Your task to perform on an android device: Open the Play Movies app and select the watchlist tab. Image 0: 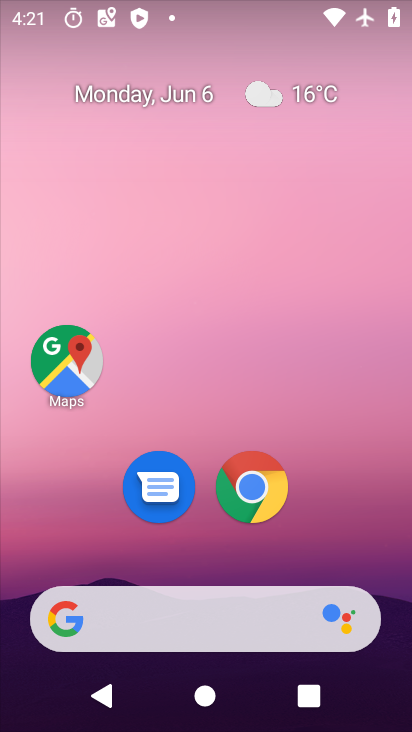
Step 0: drag from (339, 513) to (377, 147)
Your task to perform on an android device: Open the Play Movies app and select the watchlist tab. Image 1: 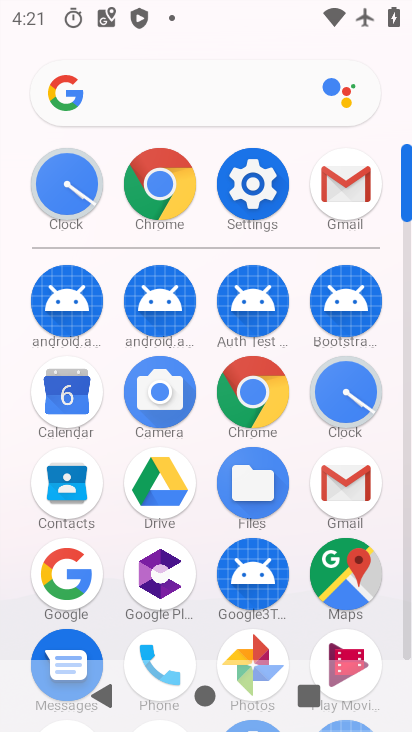
Step 1: drag from (200, 626) to (263, 313)
Your task to perform on an android device: Open the Play Movies app and select the watchlist tab. Image 2: 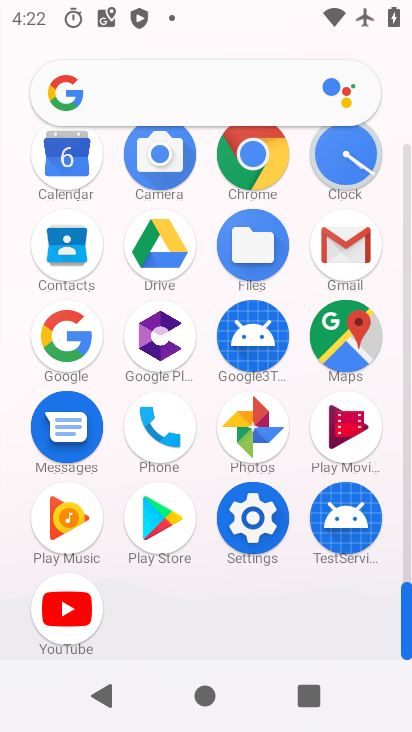
Step 2: click (169, 537)
Your task to perform on an android device: Open the Play Movies app and select the watchlist tab. Image 3: 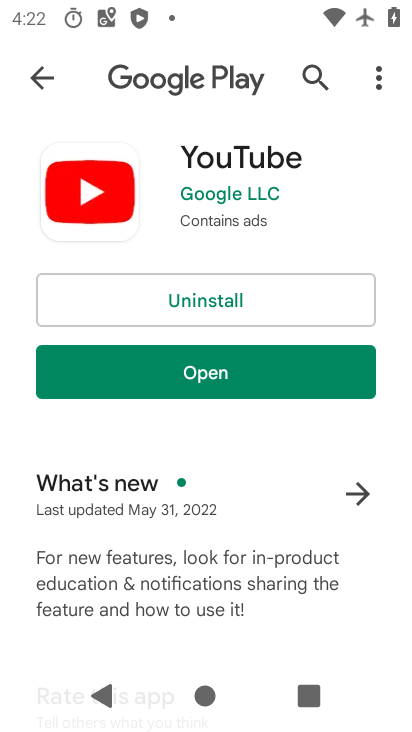
Step 3: click (49, 71)
Your task to perform on an android device: Open the Play Movies app and select the watchlist tab. Image 4: 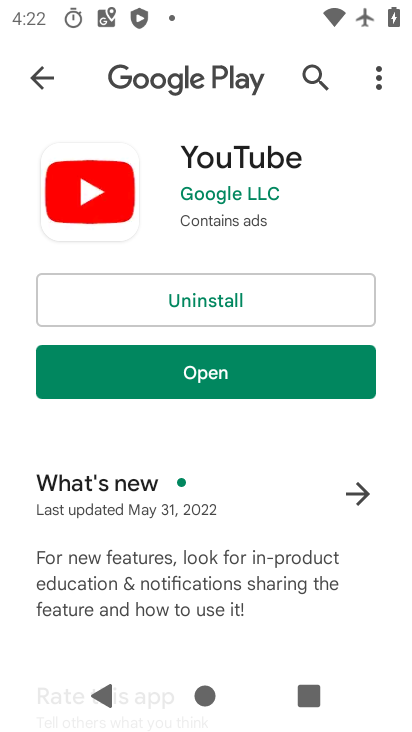
Step 4: click (42, 81)
Your task to perform on an android device: Open the Play Movies app and select the watchlist tab. Image 5: 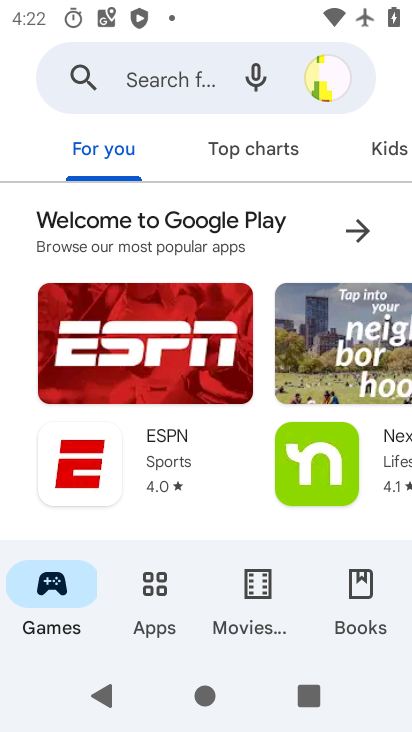
Step 5: press home button
Your task to perform on an android device: Open the Play Movies app and select the watchlist tab. Image 6: 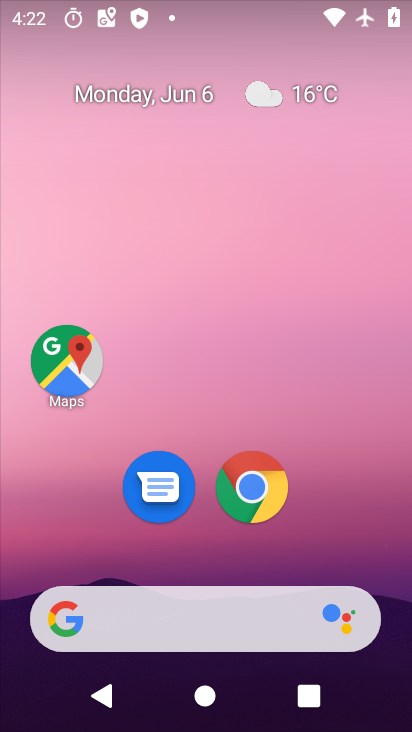
Step 6: drag from (332, 304) to (370, 82)
Your task to perform on an android device: Open the Play Movies app and select the watchlist tab. Image 7: 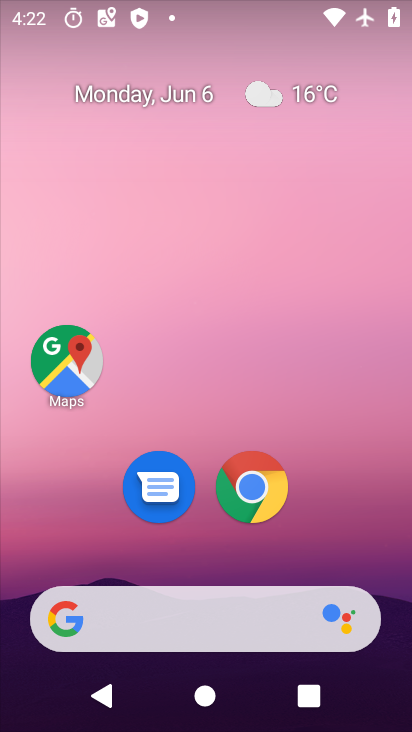
Step 7: drag from (348, 454) to (398, 127)
Your task to perform on an android device: Open the Play Movies app and select the watchlist tab. Image 8: 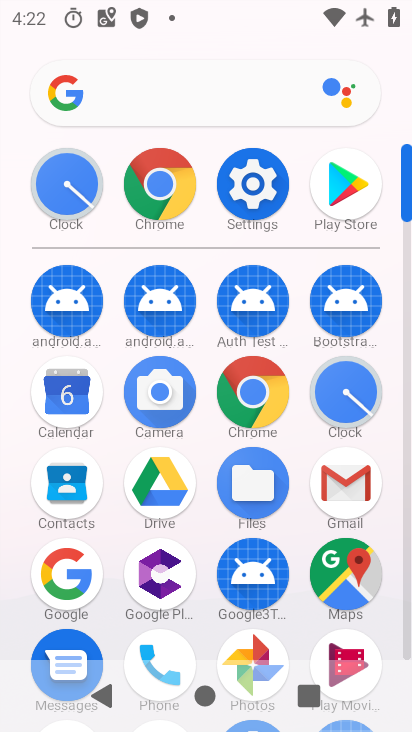
Step 8: drag from (305, 524) to (352, 132)
Your task to perform on an android device: Open the Play Movies app and select the watchlist tab. Image 9: 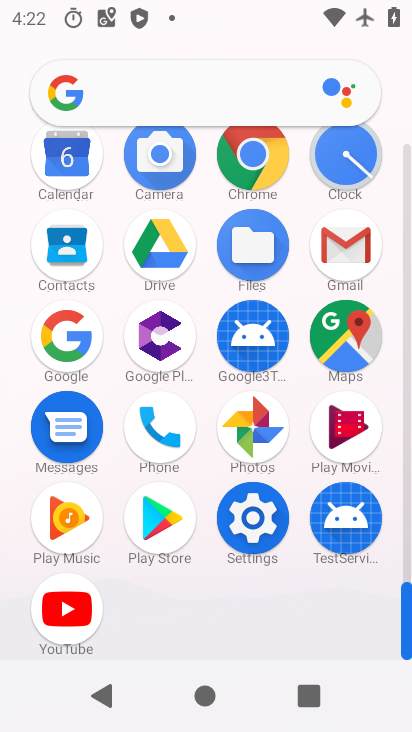
Step 9: click (353, 439)
Your task to perform on an android device: Open the Play Movies app and select the watchlist tab. Image 10: 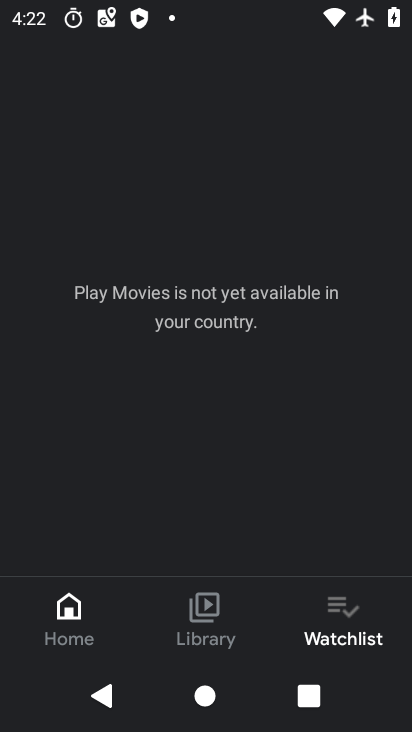
Step 10: click (334, 618)
Your task to perform on an android device: Open the Play Movies app and select the watchlist tab. Image 11: 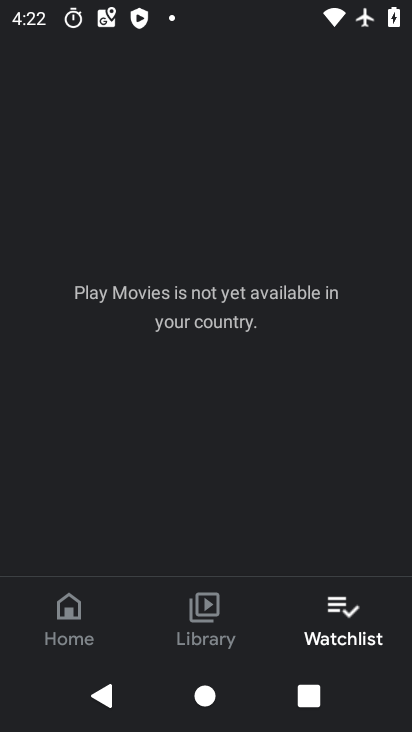
Step 11: task complete